Your task to perform on an android device: What's the weather going to be tomorrow? Image 0: 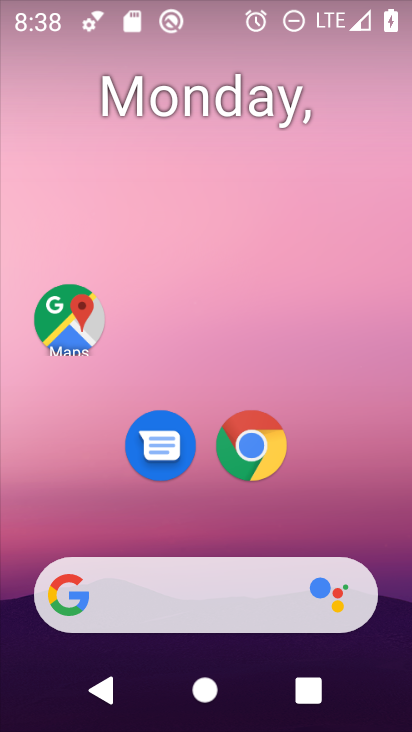
Step 0: drag from (340, 499) to (265, 154)
Your task to perform on an android device: What's the weather going to be tomorrow? Image 1: 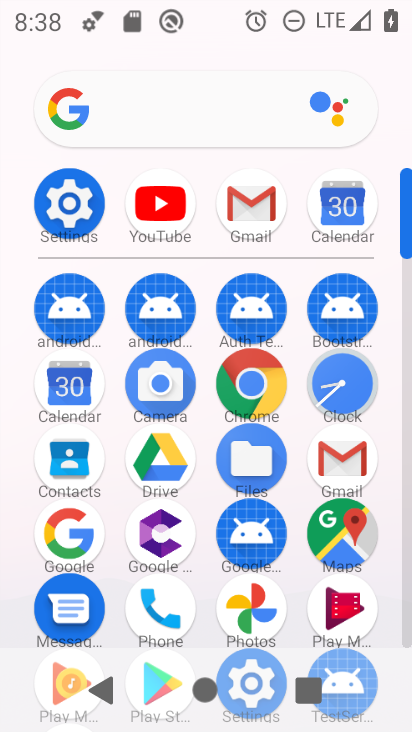
Step 1: click (113, 112)
Your task to perform on an android device: What's the weather going to be tomorrow? Image 2: 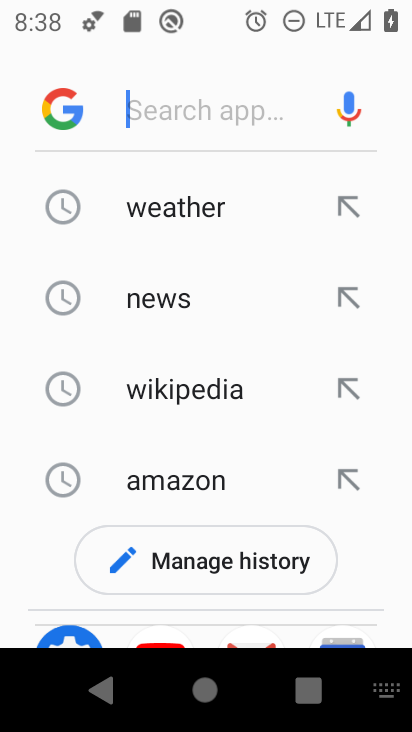
Step 2: click (170, 195)
Your task to perform on an android device: What's the weather going to be tomorrow? Image 3: 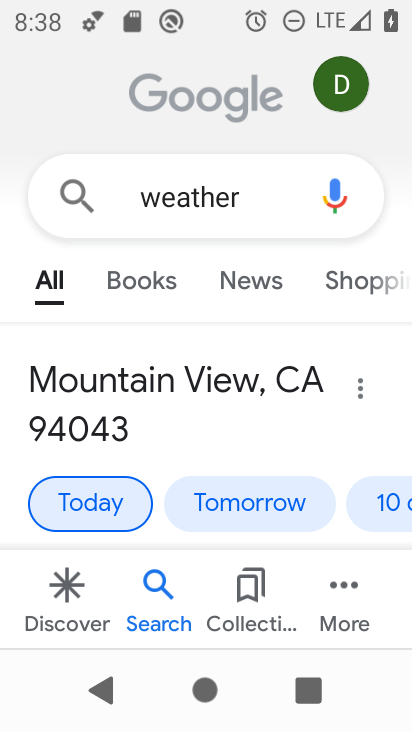
Step 3: click (250, 494)
Your task to perform on an android device: What's the weather going to be tomorrow? Image 4: 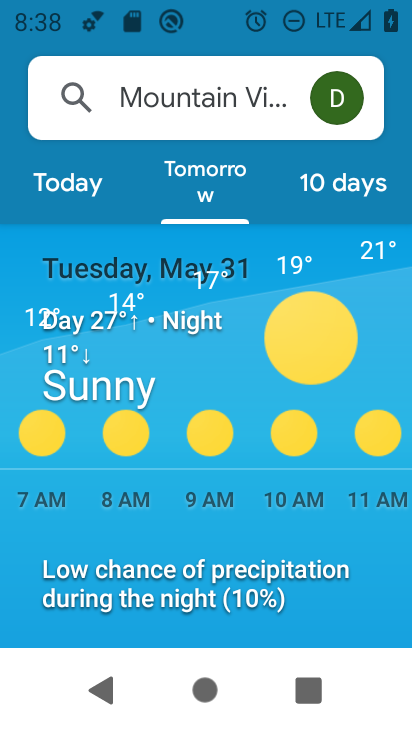
Step 4: task complete